Your task to perform on an android device: Check the news Image 0: 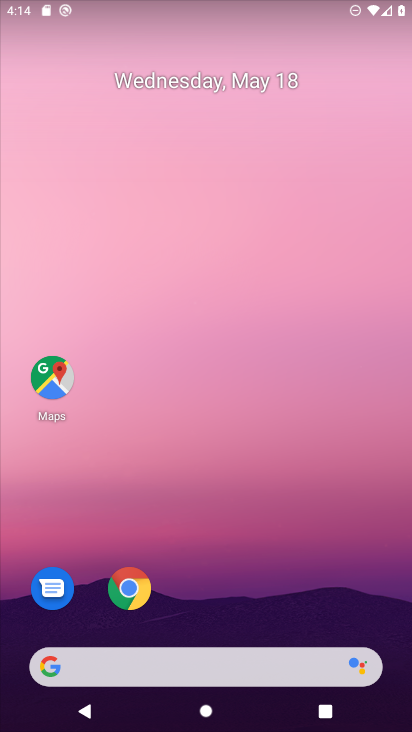
Step 0: click (221, 661)
Your task to perform on an android device: Check the news Image 1: 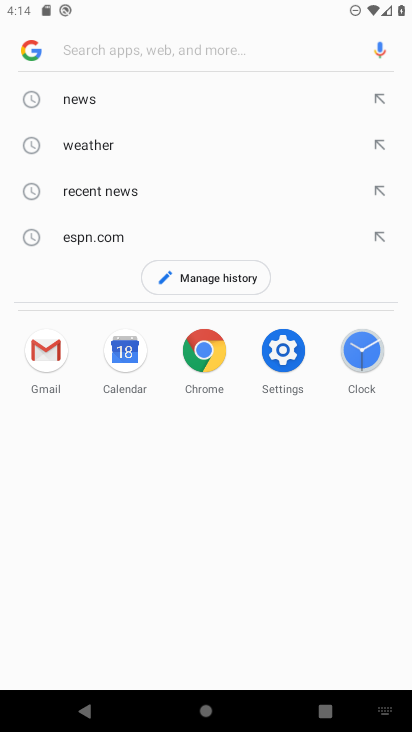
Step 1: click (161, 95)
Your task to perform on an android device: Check the news Image 2: 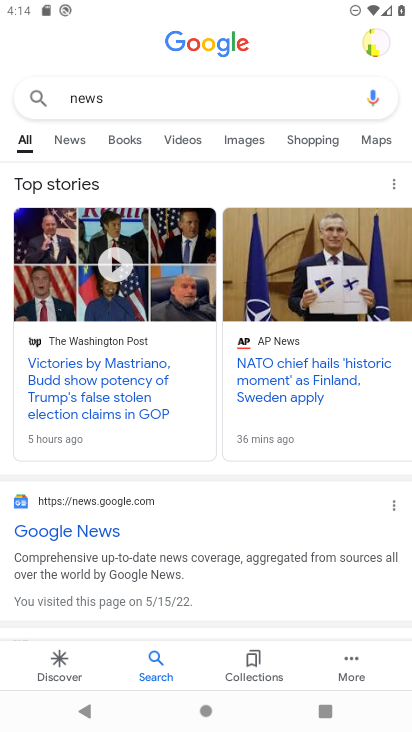
Step 2: task complete